Your task to perform on an android device: Open calendar and show me the first week of next month Image 0: 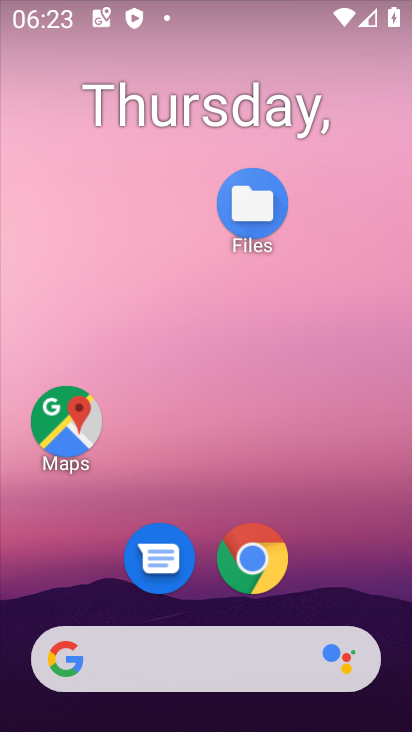
Step 0: click (150, 670)
Your task to perform on an android device: Open calendar and show me the first week of next month Image 1: 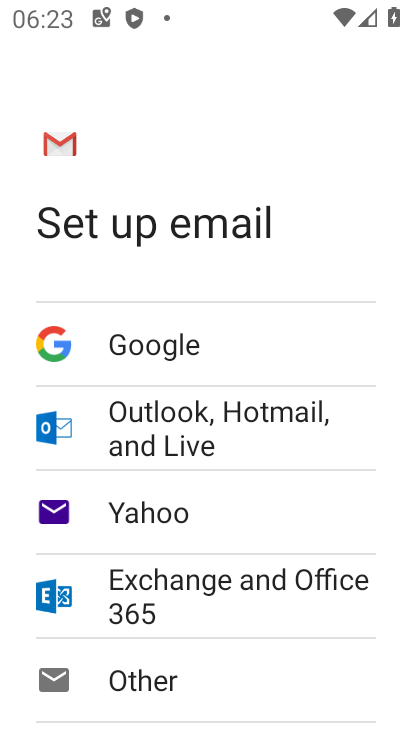
Step 1: press home button
Your task to perform on an android device: Open calendar and show me the first week of next month Image 2: 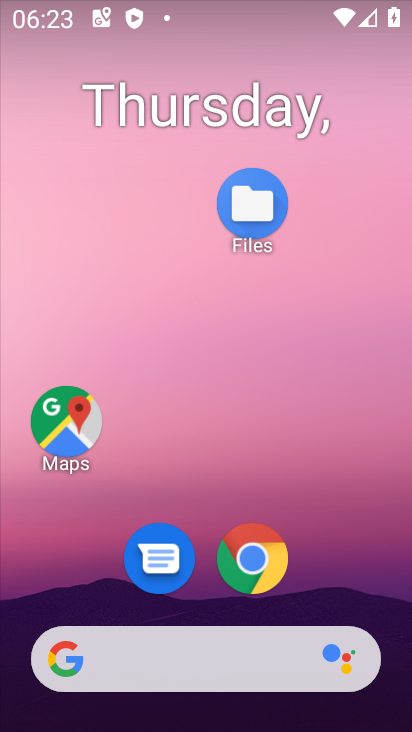
Step 2: drag from (308, 571) to (296, 61)
Your task to perform on an android device: Open calendar and show me the first week of next month Image 3: 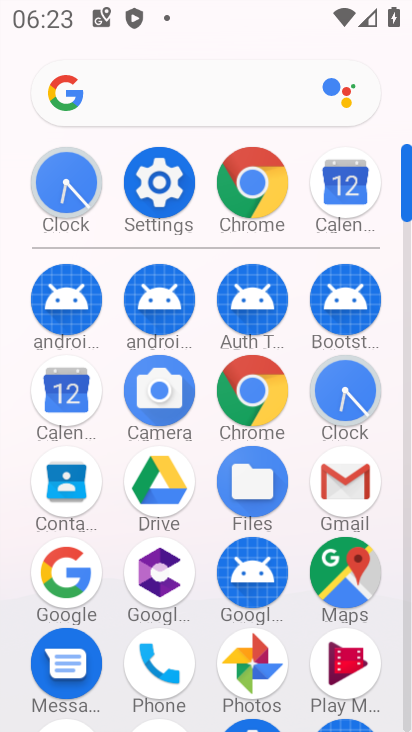
Step 3: click (69, 394)
Your task to perform on an android device: Open calendar and show me the first week of next month Image 4: 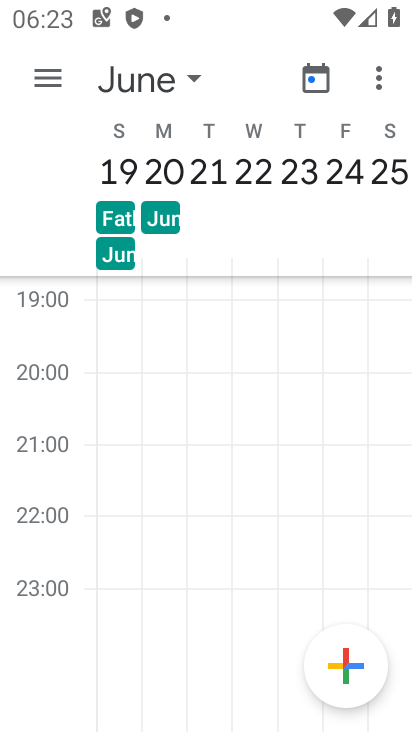
Step 4: click (183, 83)
Your task to perform on an android device: Open calendar and show me the first week of next month Image 5: 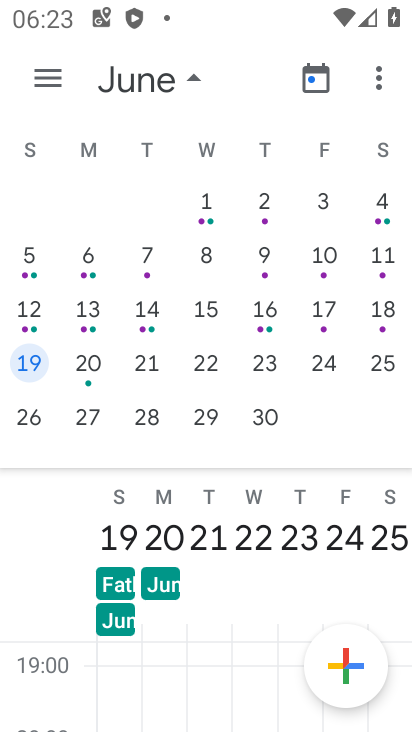
Step 5: click (26, 258)
Your task to perform on an android device: Open calendar and show me the first week of next month Image 6: 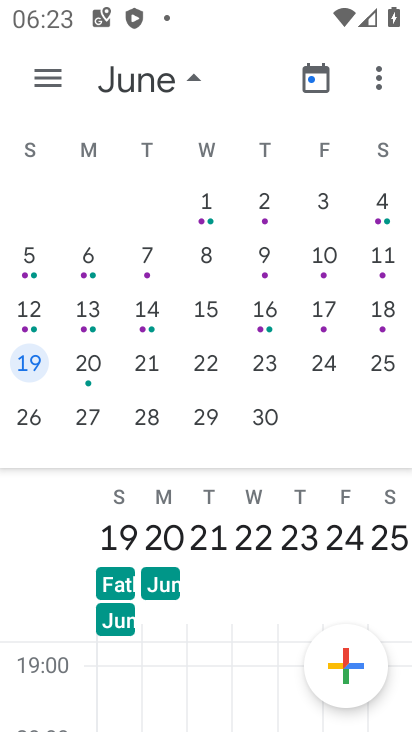
Step 6: click (26, 258)
Your task to perform on an android device: Open calendar and show me the first week of next month Image 7: 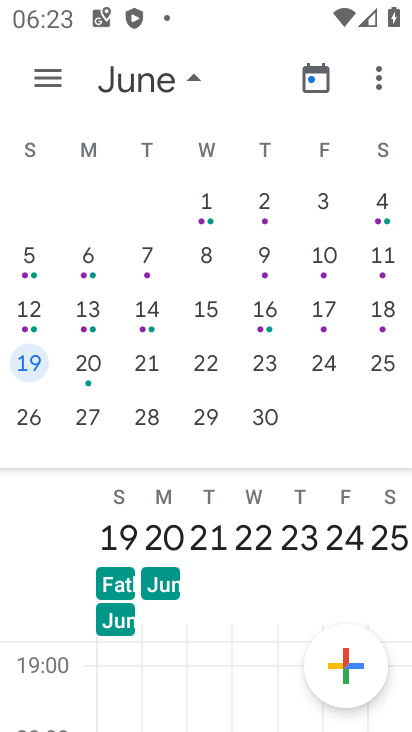
Step 7: click (26, 262)
Your task to perform on an android device: Open calendar and show me the first week of next month Image 8: 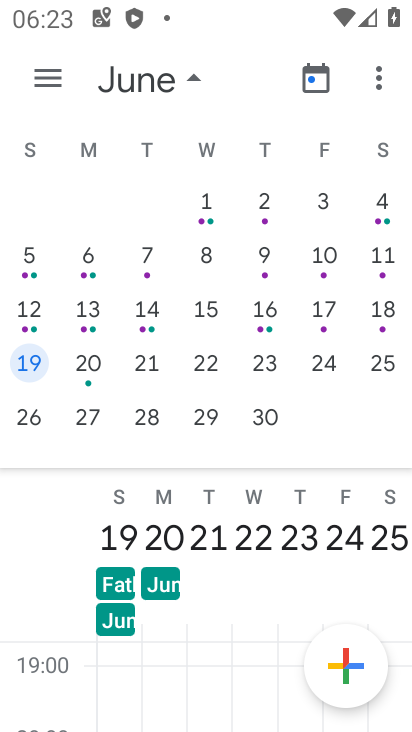
Step 8: click (26, 262)
Your task to perform on an android device: Open calendar and show me the first week of next month Image 9: 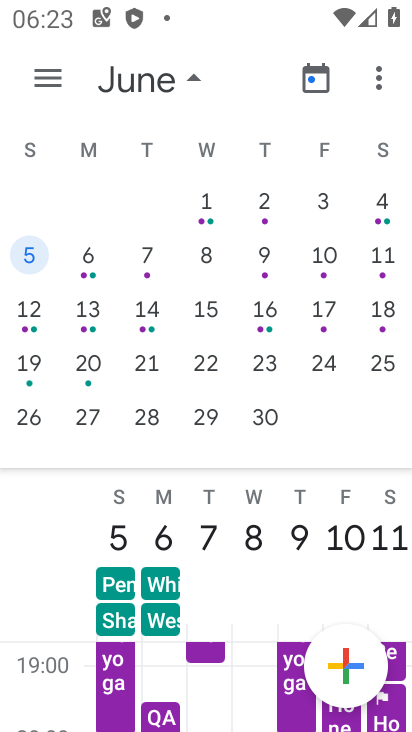
Step 9: task complete